Your task to perform on an android device: Go to sound settings Image 0: 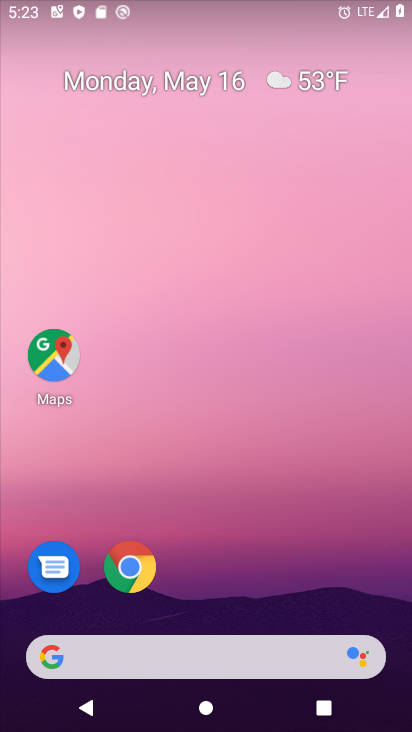
Step 0: drag from (262, 654) to (291, 71)
Your task to perform on an android device: Go to sound settings Image 1: 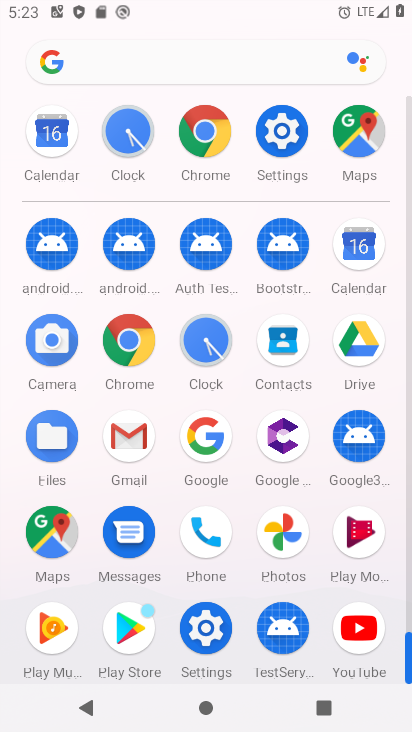
Step 1: click (283, 131)
Your task to perform on an android device: Go to sound settings Image 2: 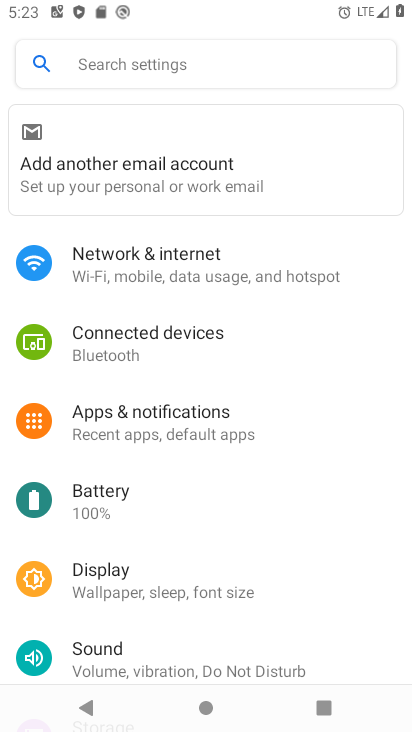
Step 2: drag from (217, 595) to (230, 362)
Your task to perform on an android device: Go to sound settings Image 3: 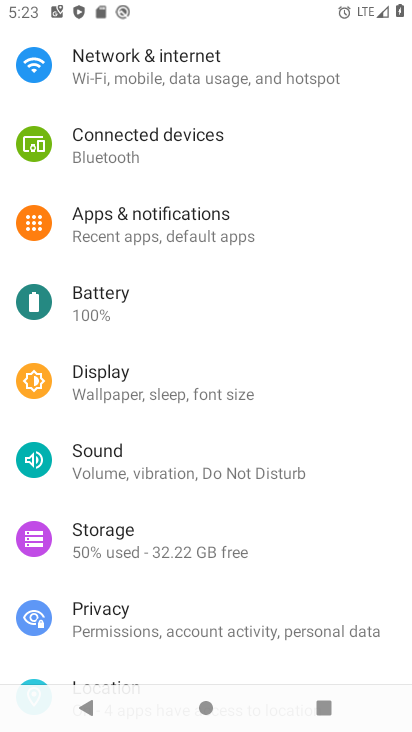
Step 3: click (220, 472)
Your task to perform on an android device: Go to sound settings Image 4: 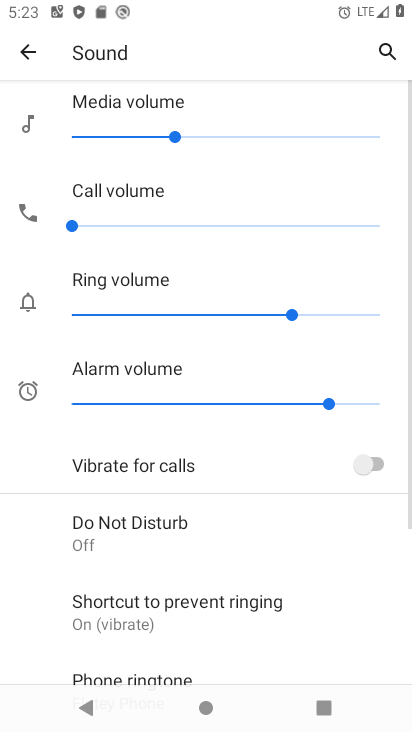
Step 4: task complete